Your task to perform on an android device: check google app version Image 0: 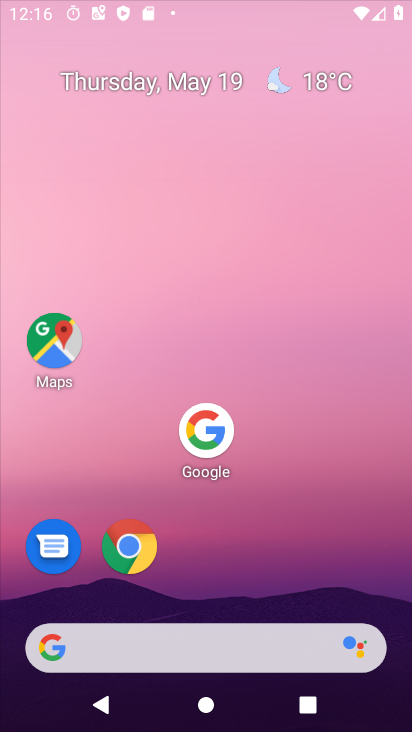
Step 0: drag from (253, 544) to (317, 63)
Your task to perform on an android device: check google app version Image 1: 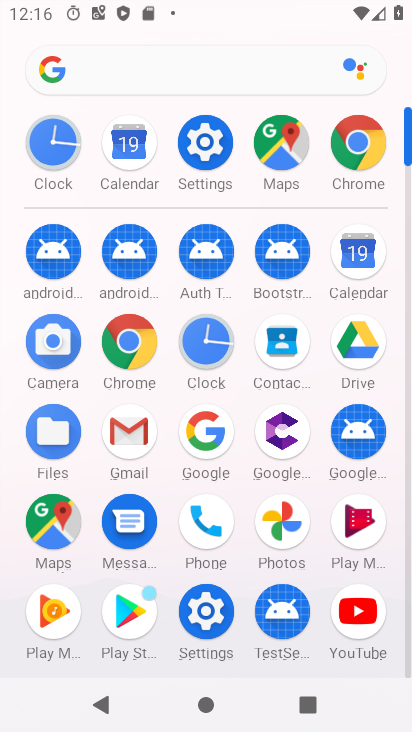
Step 1: click (209, 431)
Your task to perform on an android device: check google app version Image 2: 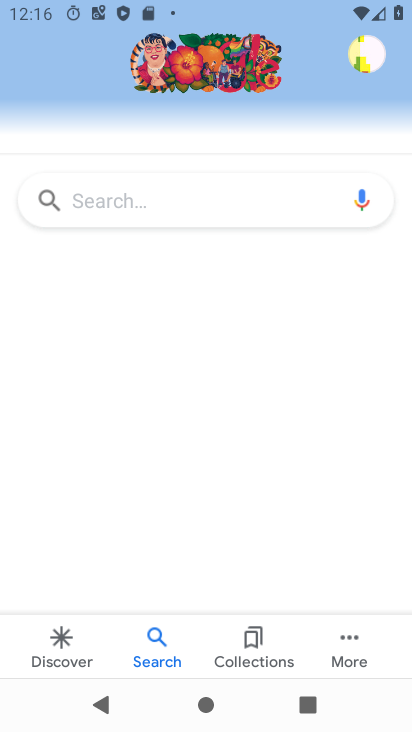
Step 2: click (340, 645)
Your task to perform on an android device: check google app version Image 3: 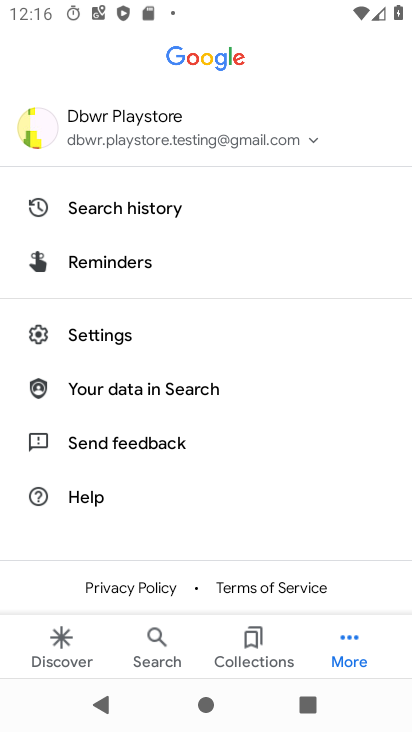
Step 3: click (123, 344)
Your task to perform on an android device: check google app version Image 4: 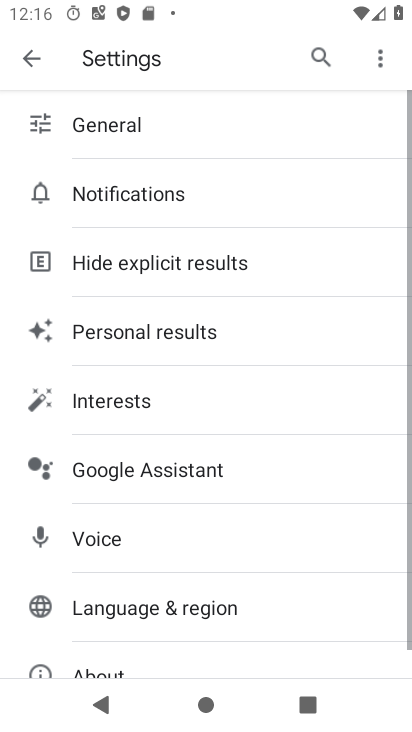
Step 4: drag from (168, 589) to (164, 258)
Your task to perform on an android device: check google app version Image 5: 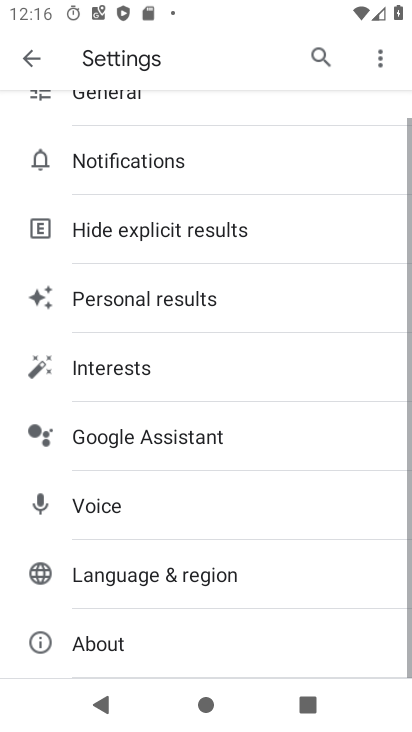
Step 5: click (109, 643)
Your task to perform on an android device: check google app version Image 6: 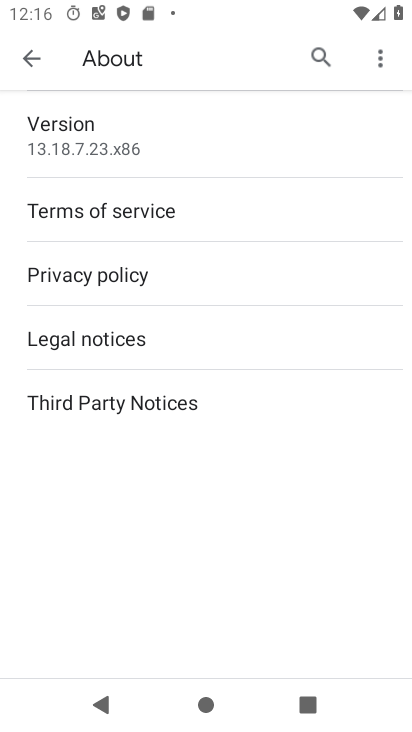
Step 6: click (121, 153)
Your task to perform on an android device: check google app version Image 7: 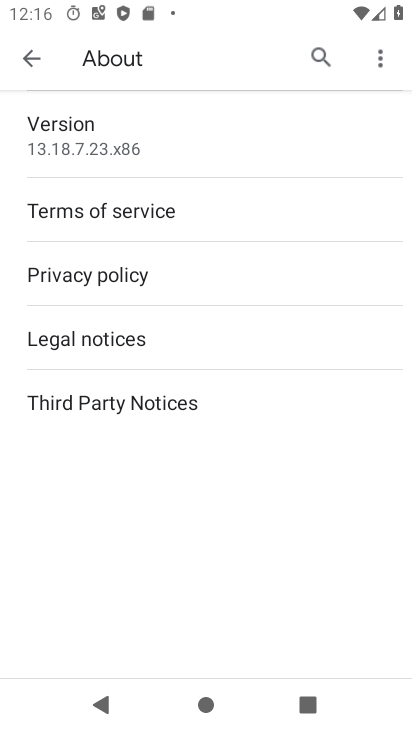
Step 7: task complete